Your task to perform on an android device: turn on airplane mode Image 0: 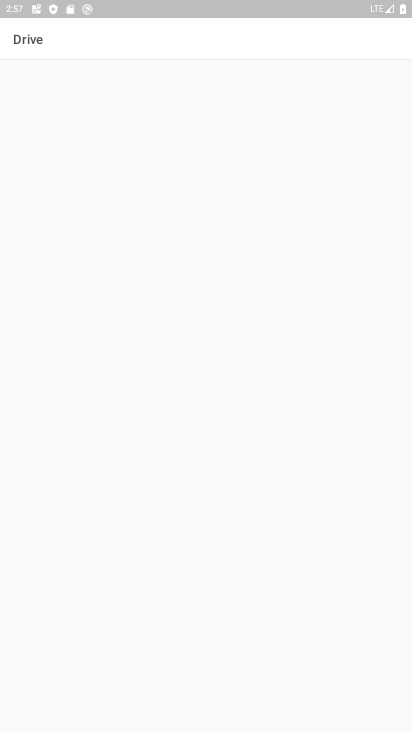
Step 0: press home button
Your task to perform on an android device: turn on airplane mode Image 1: 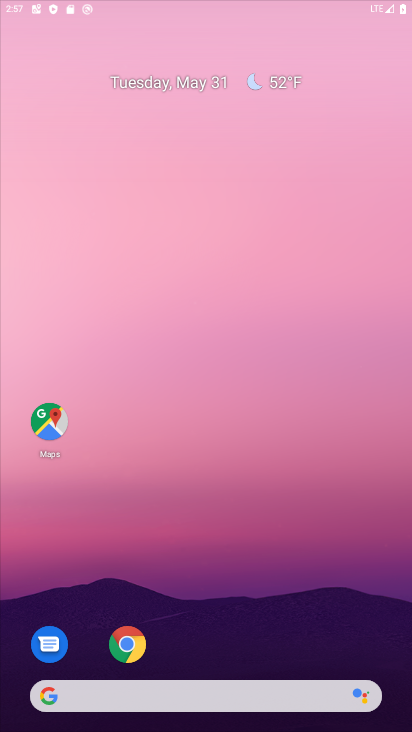
Step 1: drag from (175, 11) to (142, 639)
Your task to perform on an android device: turn on airplane mode Image 2: 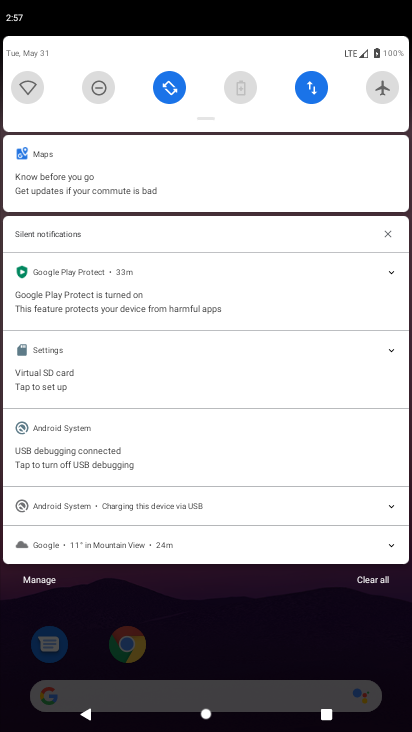
Step 2: click (383, 94)
Your task to perform on an android device: turn on airplane mode Image 3: 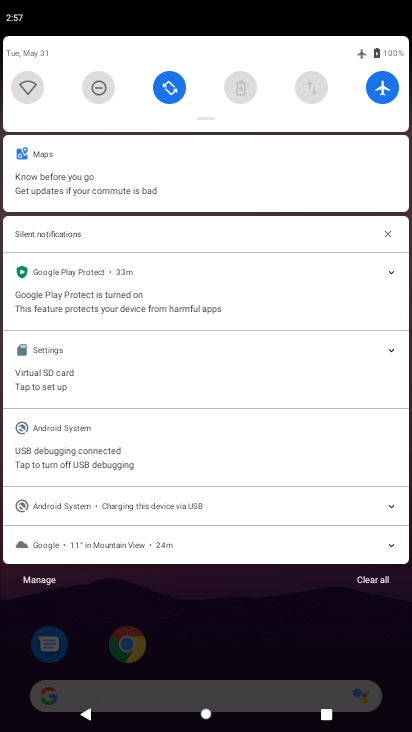
Step 3: task complete